Your task to perform on an android device: turn off picture-in-picture Image 0: 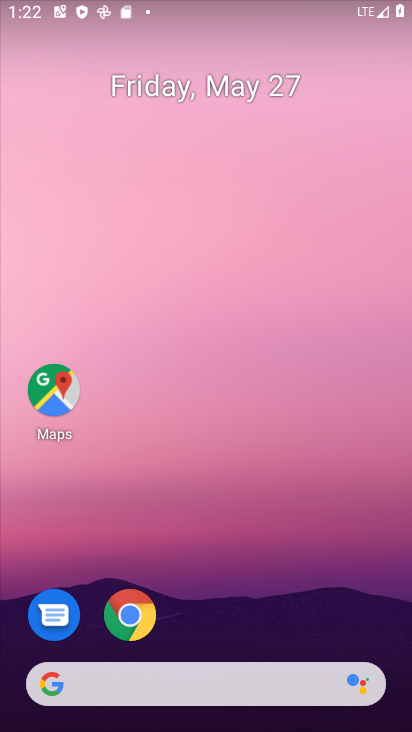
Step 0: drag from (139, 690) to (197, 142)
Your task to perform on an android device: turn off picture-in-picture Image 1: 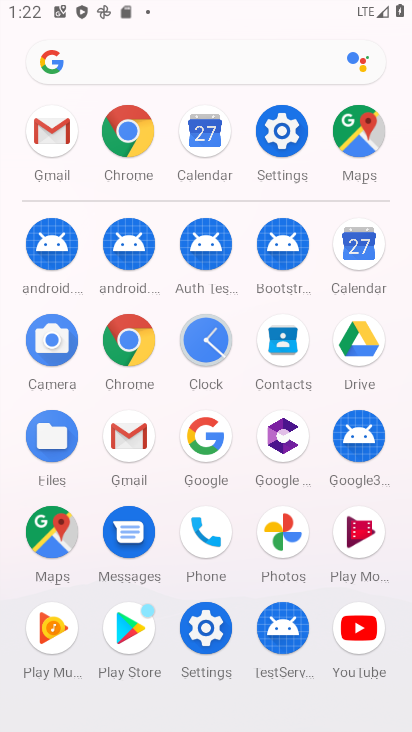
Step 1: click (293, 129)
Your task to perform on an android device: turn off picture-in-picture Image 2: 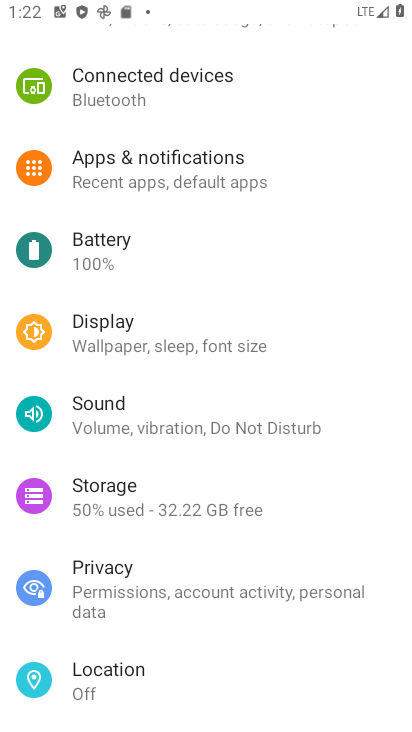
Step 2: drag from (201, 622) to (297, 75)
Your task to perform on an android device: turn off picture-in-picture Image 3: 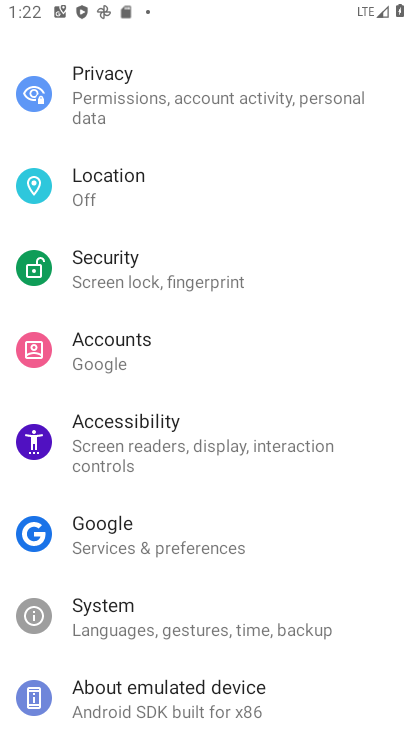
Step 3: drag from (268, 107) to (249, 666)
Your task to perform on an android device: turn off picture-in-picture Image 4: 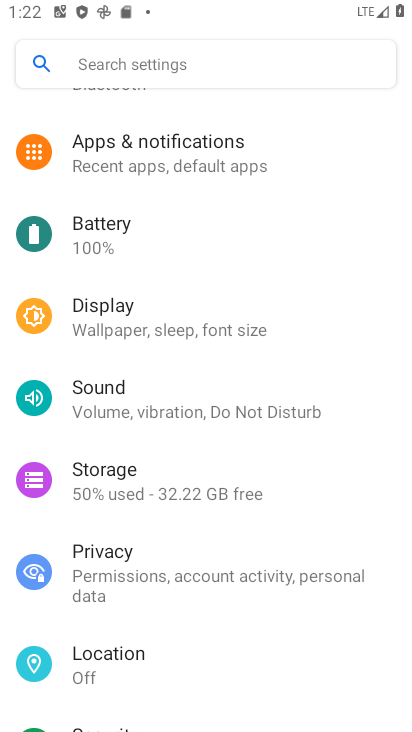
Step 4: click (177, 166)
Your task to perform on an android device: turn off picture-in-picture Image 5: 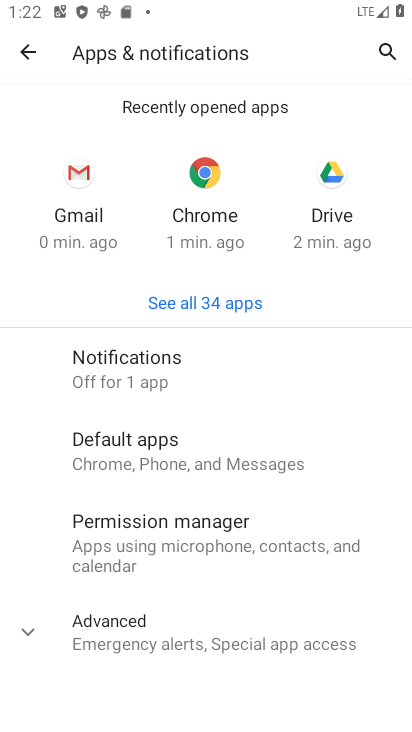
Step 5: drag from (178, 661) to (219, 334)
Your task to perform on an android device: turn off picture-in-picture Image 6: 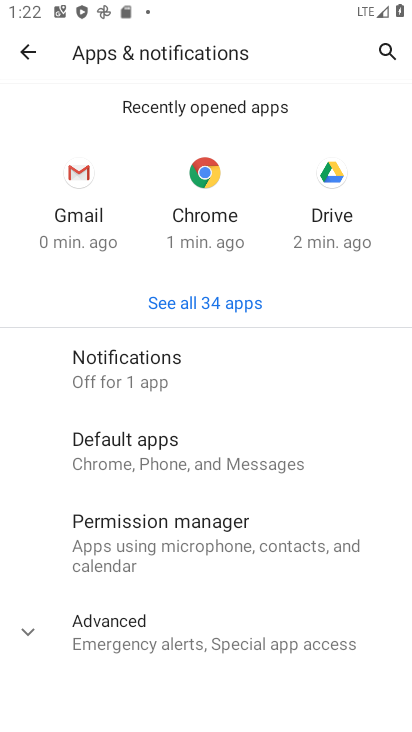
Step 6: click (166, 645)
Your task to perform on an android device: turn off picture-in-picture Image 7: 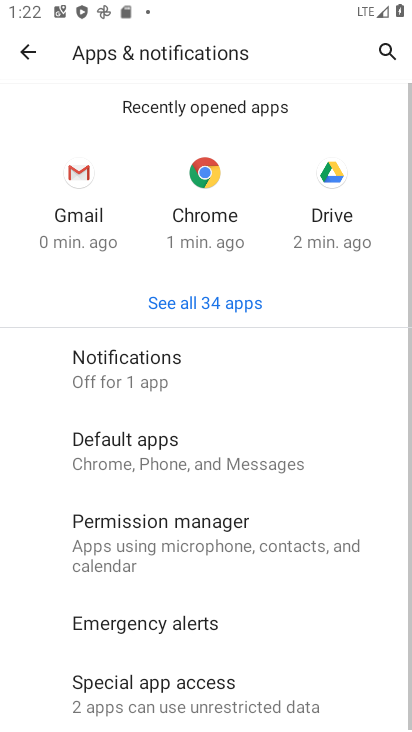
Step 7: click (164, 715)
Your task to perform on an android device: turn off picture-in-picture Image 8: 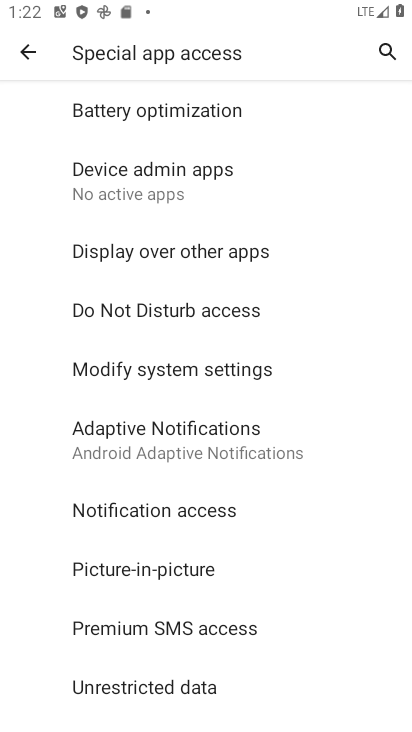
Step 8: click (200, 568)
Your task to perform on an android device: turn off picture-in-picture Image 9: 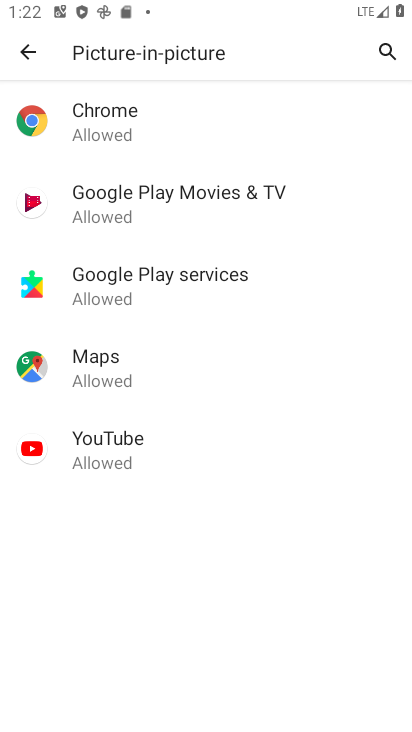
Step 9: click (127, 125)
Your task to perform on an android device: turn off picture-in-picture Image 10: 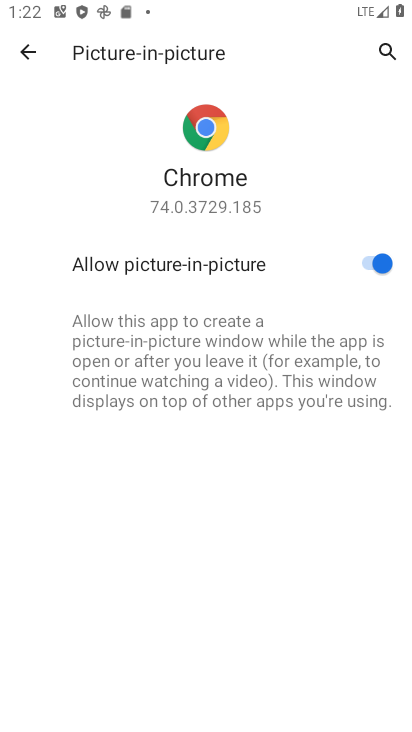
Step 10: click (373, 264)
Your task to perform on an android device: turn off picture-in-picture Image 11: 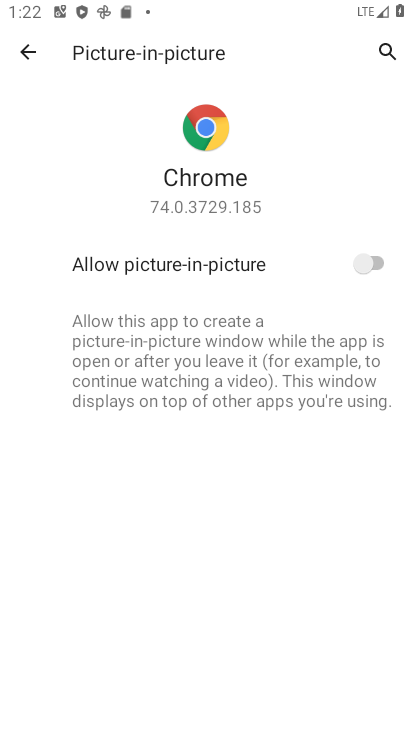
Step 11: press back button
Your task to perform on an android device: turn off picture-in-picture Image 12: 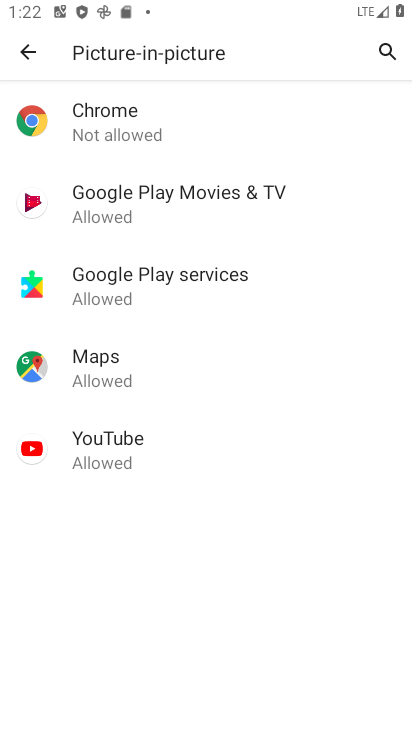
Step 12: click (174, 214)
Your task to perform on an android device: turn off picture-in-picture Image 13: 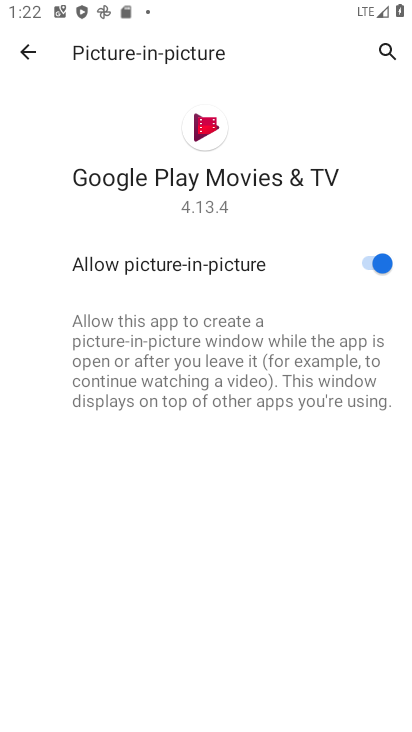
Step 13: click (366, 255)
Your task to perform on an android device: turn off picture-in-picture Image 14: 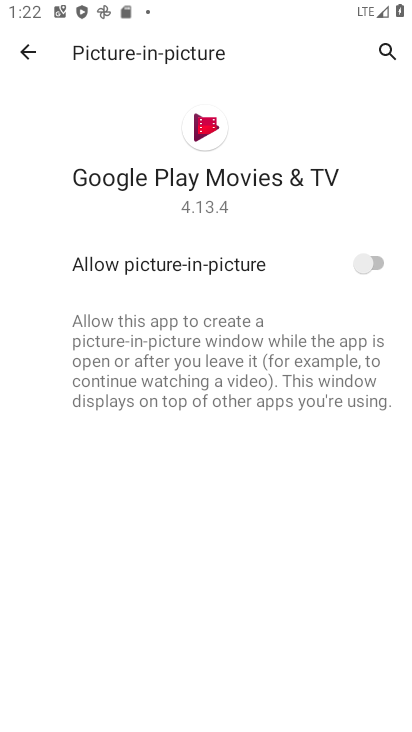
Step 14: press back button
Your task to perform on an android device: turn off picture-in-picture Image 15: 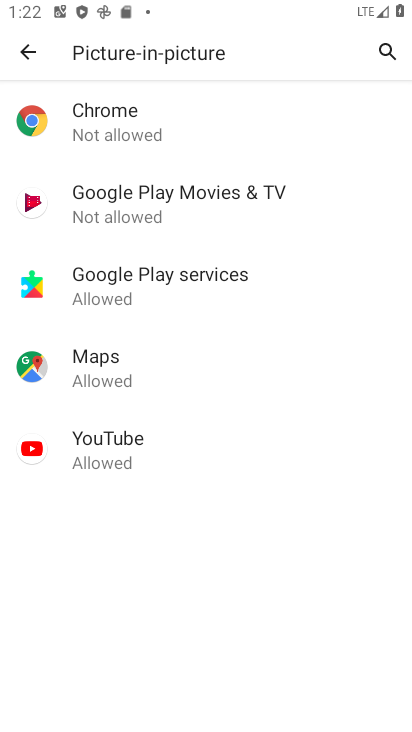
Step 15: click (196, 293)
Your task to perform on an android device: turn off picture-in-picture Image 16: 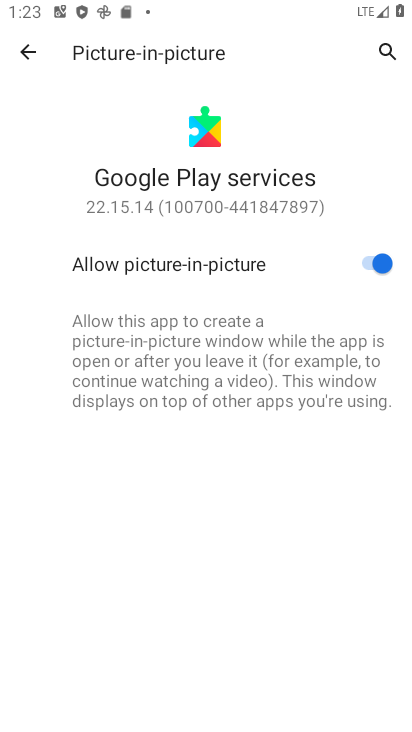
Step 16: click (368, 262)
Your task to perform on an android device: turn off picture-in-picture Image 17: 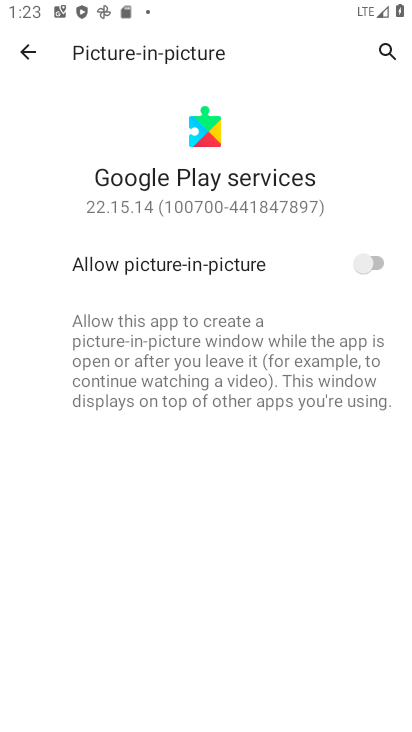
Step 17: press back button
Your task to perform on an android device: turn off picture-in-picture Image 18: 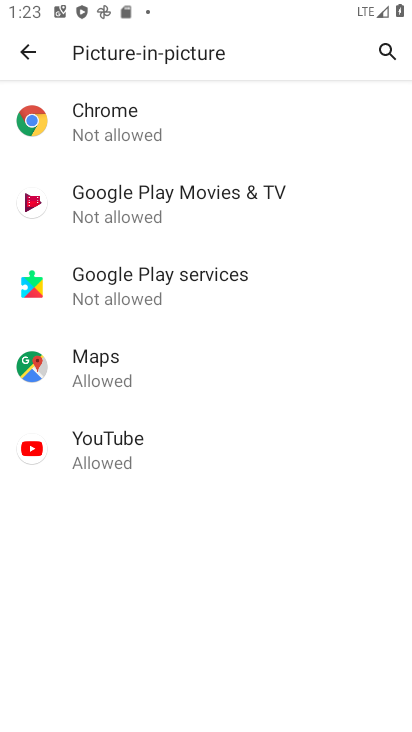
Step 18: click (172, 359)
Your task to perform on an android device: turn off picture-in-picture Image 19: 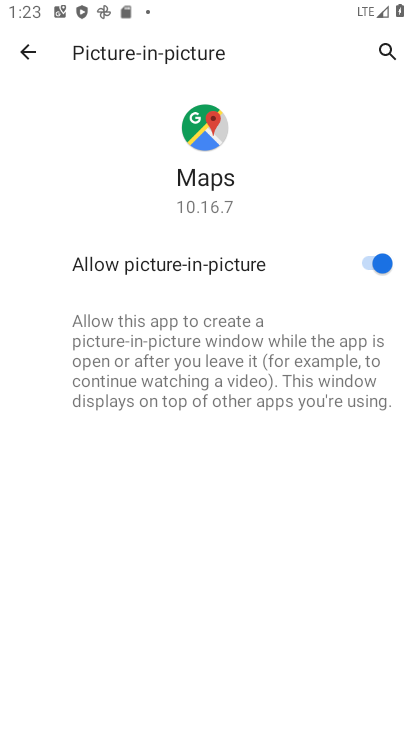
Step 19: click (370, 268)
Your task to perform on an android device: turn off picture-in-picture Image 20: 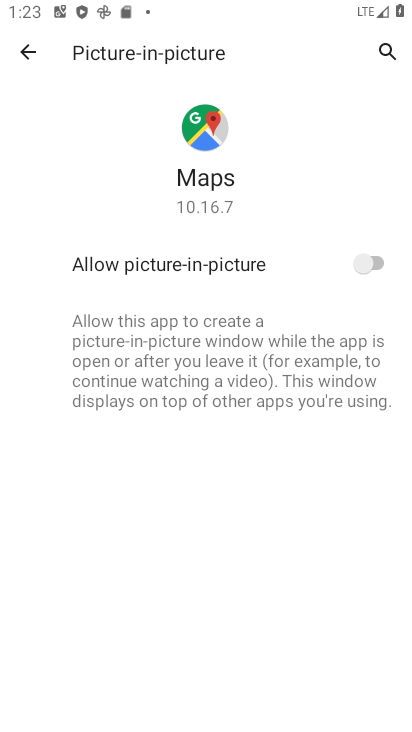
Step 20: press back button
Your task to perform on an android device: turn off picture-in-picture Image 21: 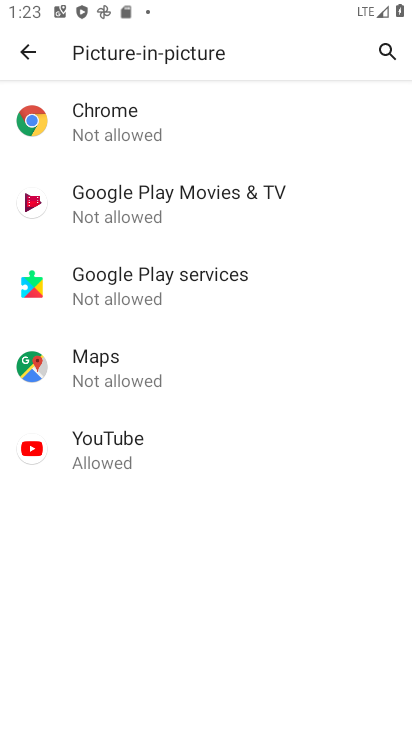
Step 21: click (169, 450)
Your task to perform on an android device: turn off picture-in-picture Image 22: 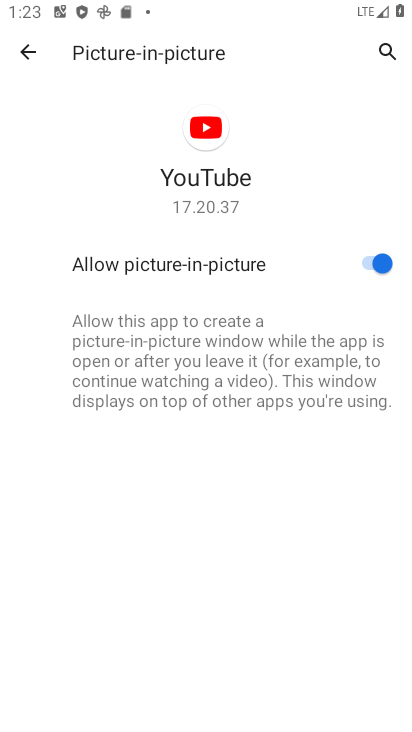
Step 22: click (379, 261)
Your task to perform on an android device: turn off picture-in-picture Image 23: 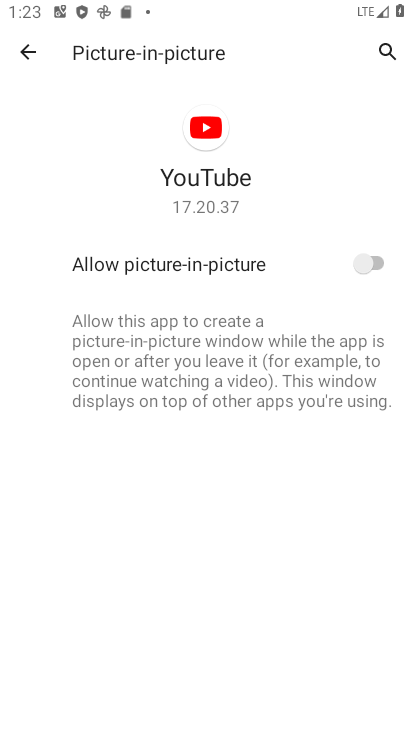
Step 23: task complete